Your task to perform on an android device: turn on wifi Image 0: 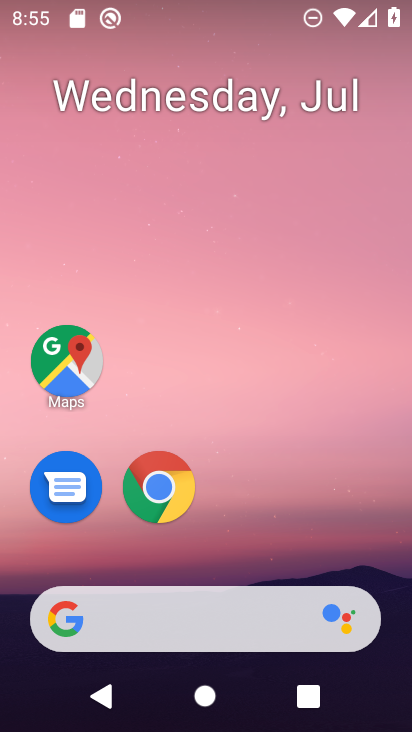
Step 0: drag from (349, 509) to (371, 81)
Your task to perform on an android device: turn on wifi Image 1: 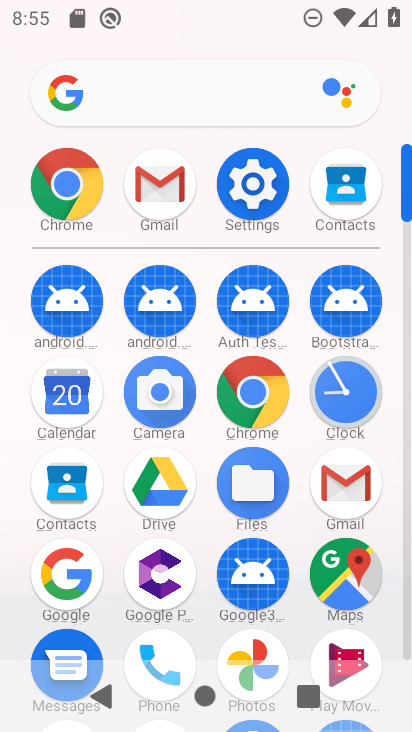
Step 1: click (272, 184)
Your task to perform on an android device: turn on wifi Image 2: 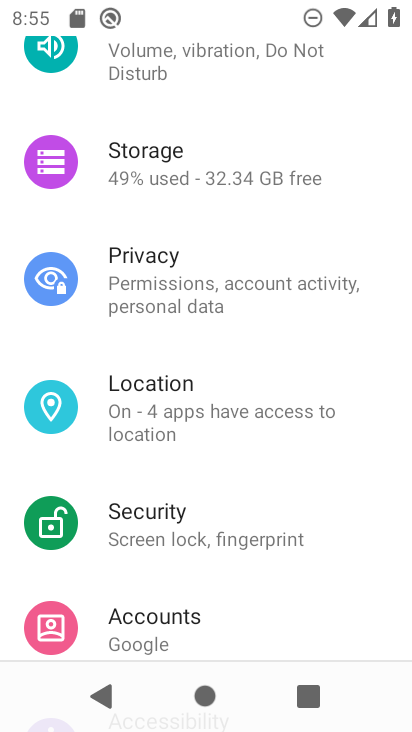
Step 2: drag from (380, 244) to (373, 322)
Your task to perform on an android device: turn on wifi Image 3: 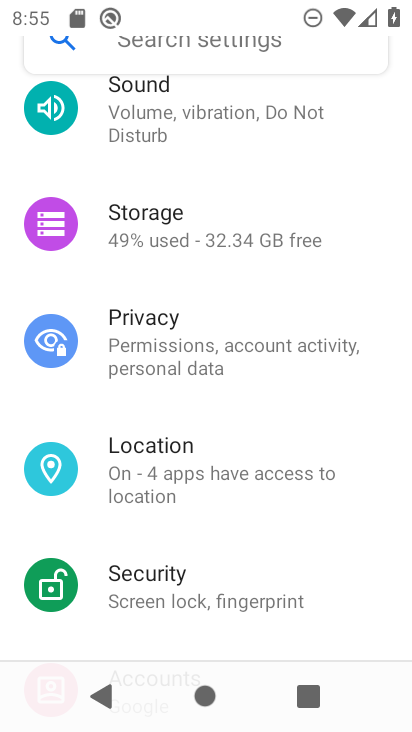
Step 3: drag from (360, 237) to (348, 306)
Your task to perform on an android device: turn on wifi Image 4: 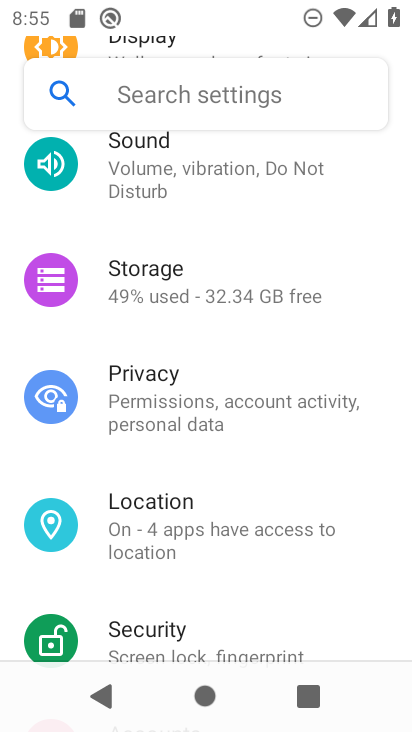
Step 4: drag from (369, 237) to (359, 308)
Your task to perform on an android device: turn on wifi Image 5: 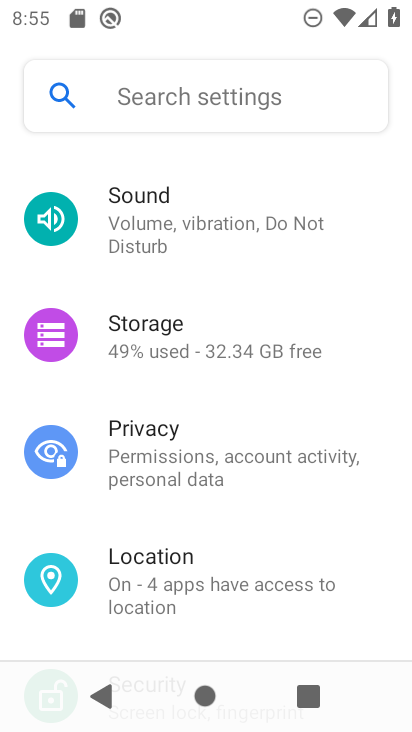
Step 5: drag from (369, 199) to (381, 260)
Your task to perform on an android device: turn on wifi Image 6: 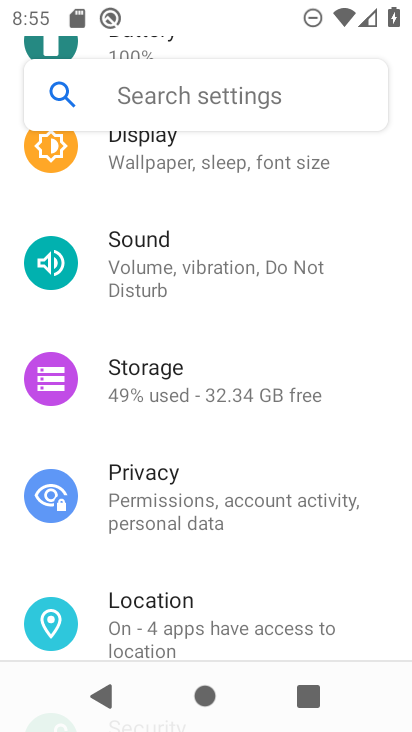
Step 6: drag from (382, 197) to (398, 279)
Your task to perform on an android device: turn on wifi Image 7: 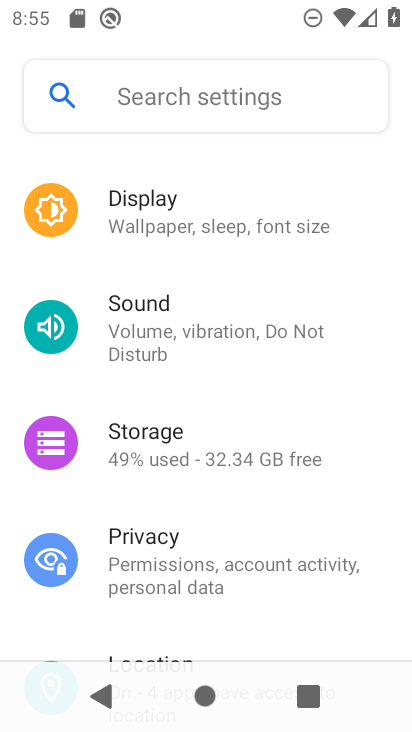
Step 7: drag from (360, 182) to (358, 290)
Your task to perform on an android device: turn on wifi Image 8: 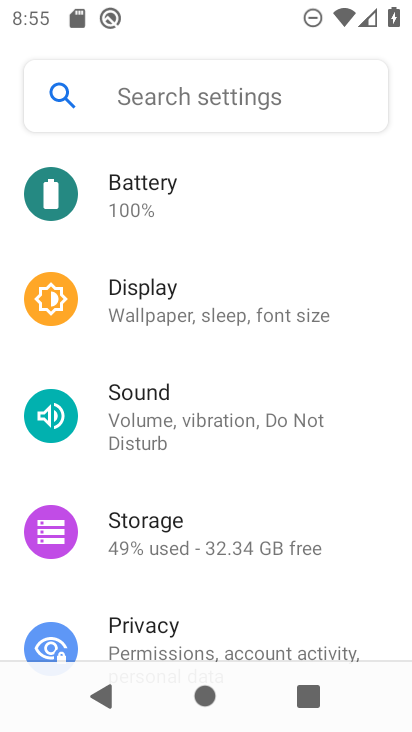
Step 8: drag from (364, 178) to (344, 286)
Your task to perform on an android device: turn on wifi Image 9: 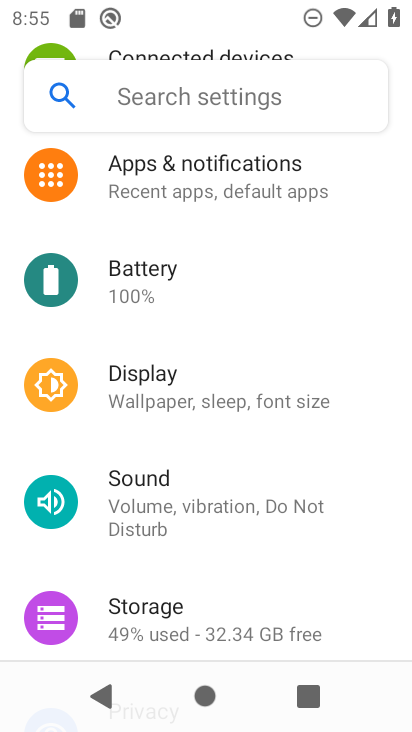
Step 9: drag from (377, 174) to (388, 369)
Your task to perform on an android device: turn on wifi Image 10: 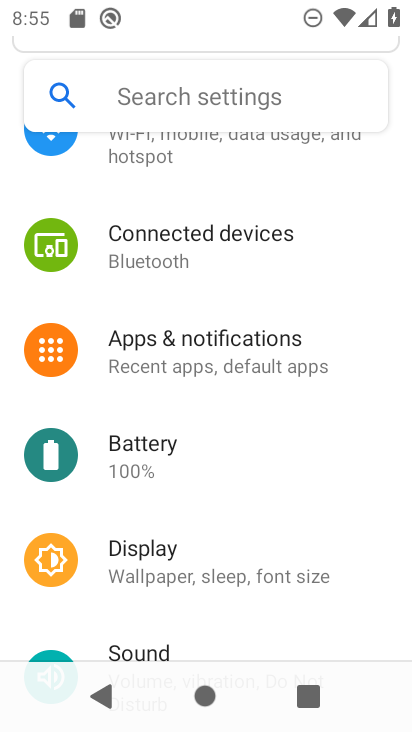
Step 10: drag from (362, 173) to (380, 305)
Your task to perform on an android device: turn on wifi Image 11: 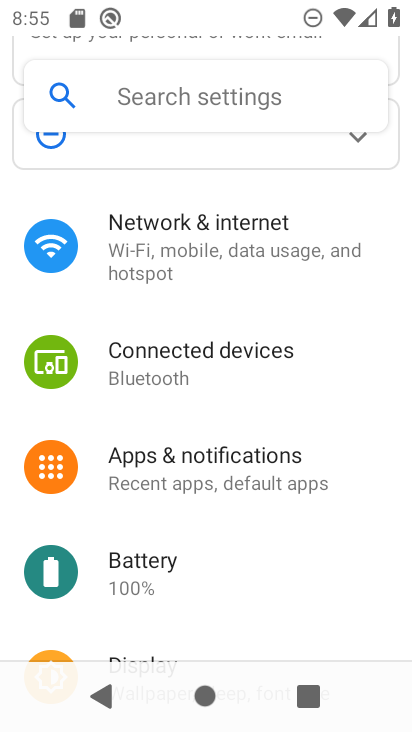
Step 11: click (329, 231)
Your task to perform on an android device: turn on wifi Image 12: 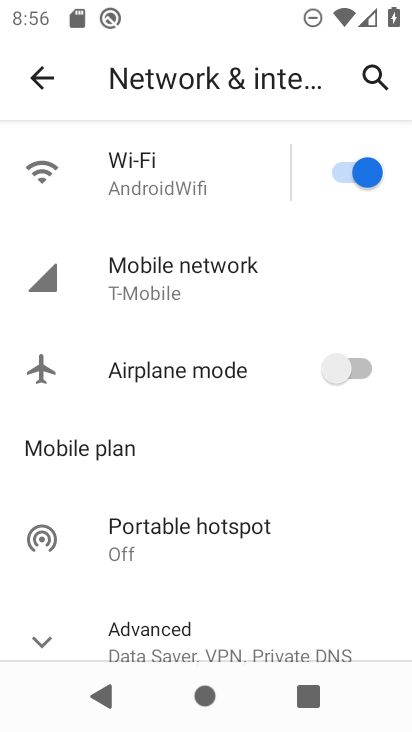
Step 12: task complete